Your task to perform on an android device: What is the news today? Image 0: 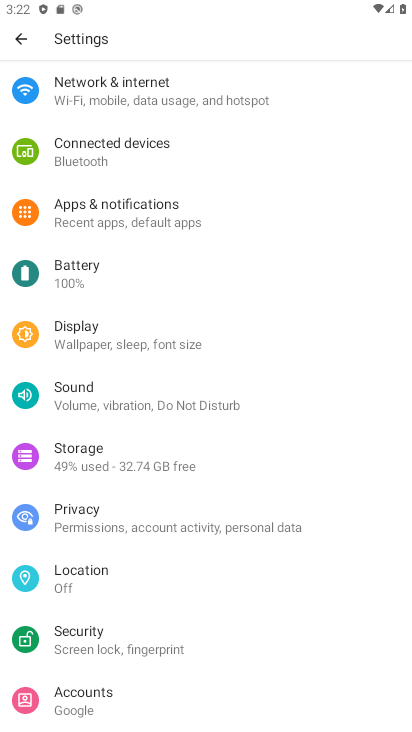
Step 0: press back button
Your task to perform on an android device: What is the news today? Image 1: 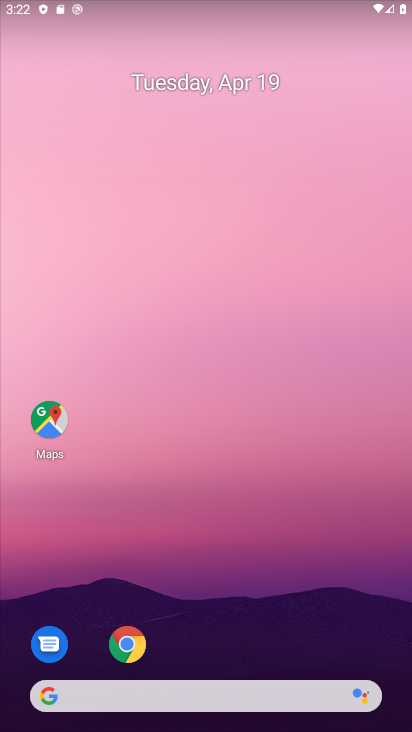
Step 1: task complete